Your task to perform on an android device: add a contact Image 0: 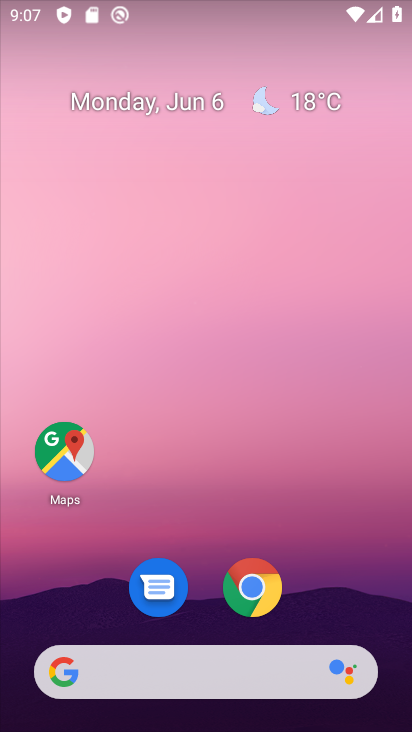
Step 0: drag from (315, 416) to (296, 127)
Your task to perform on an android device: add a contact Image 1: 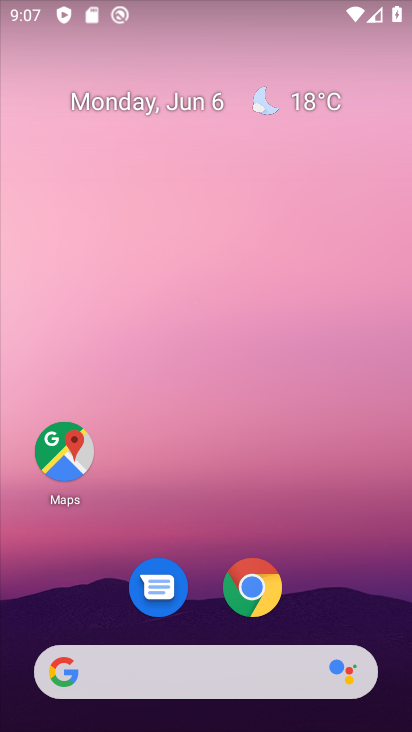
Step 1: drag from (295, 554) to (310, 101)
Your task to perform on an android device: add a contact Image 2: 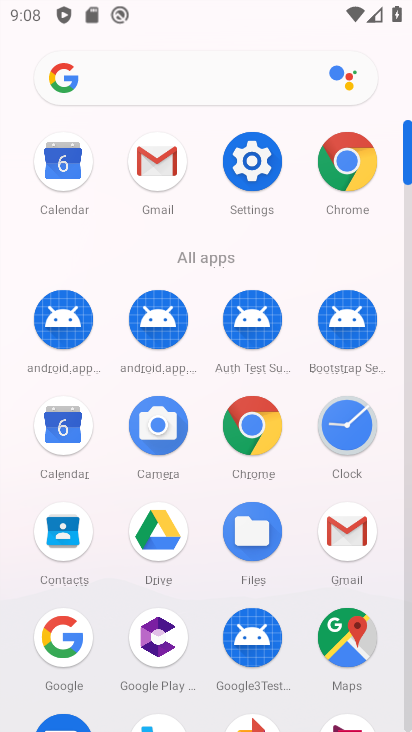
Step 2: click (73, 540)
Your task to perform on an android device: add a contact Image 3: 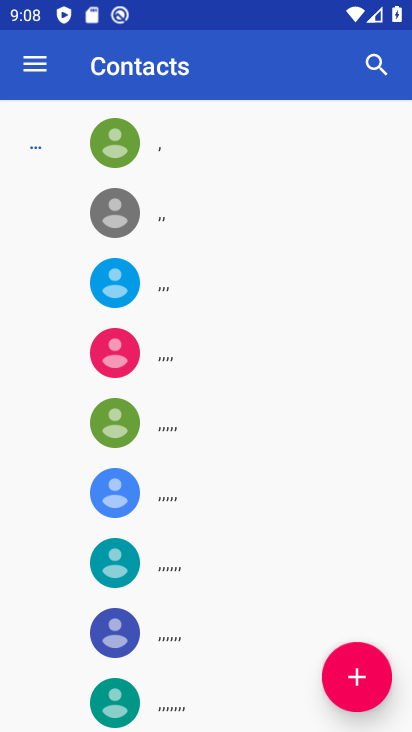
Step 3: click (322, 656)
Your task to perform on an android device: add a contact Image 4: 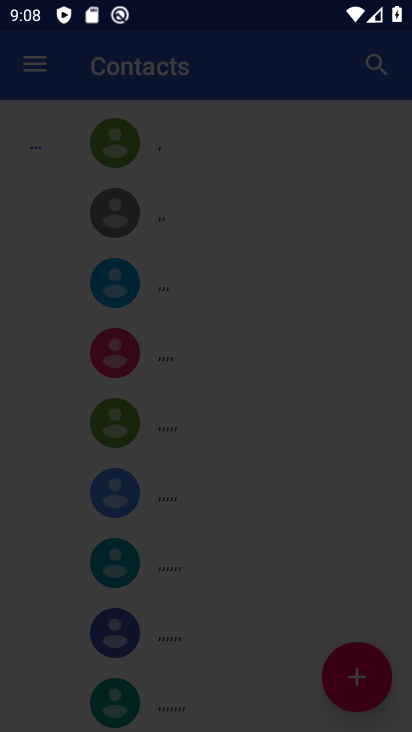
Step 4: click (339, 662)
Your task to perform on an android device: add a contact Image 5: 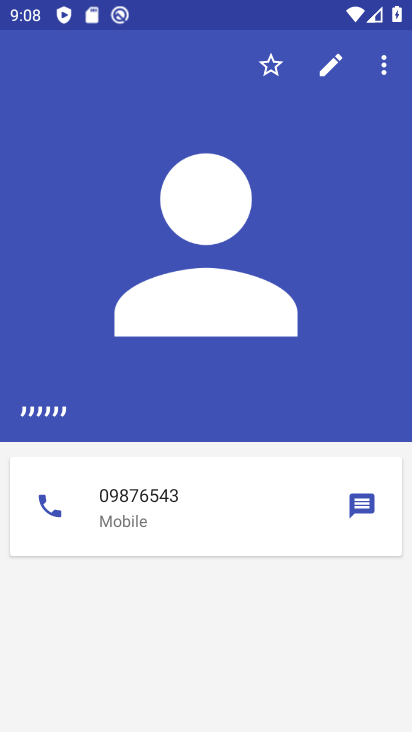
Step 5: press back button
Your task to perform on an android device: add a contact Image 6: 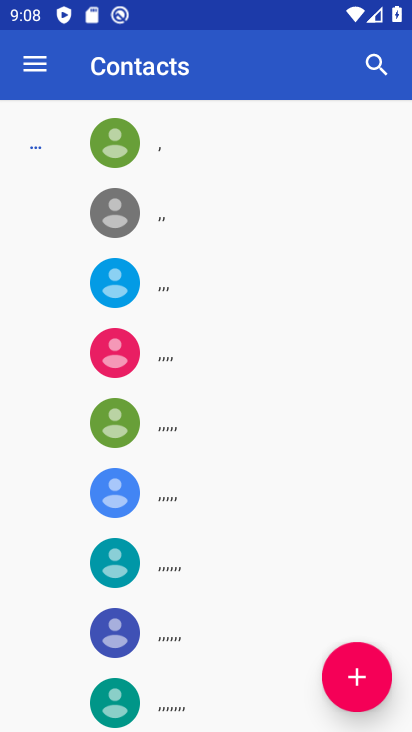
Step 6: click (360, 676)
Your task to perform on an android device: add a contact Image 7: 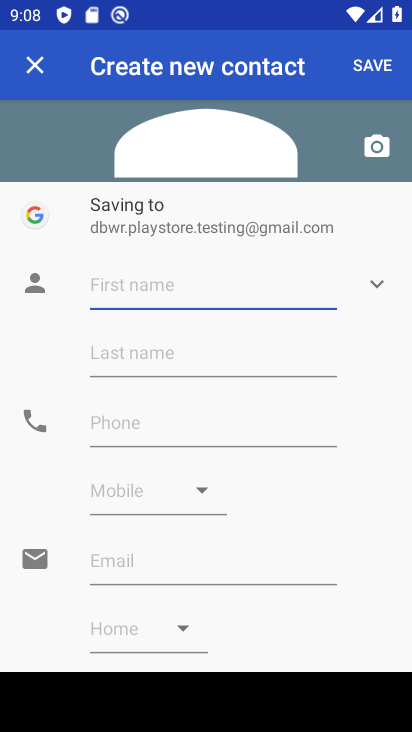
Step 7: type "titito"
Your task to perform on an android device: add a contact Image 8: 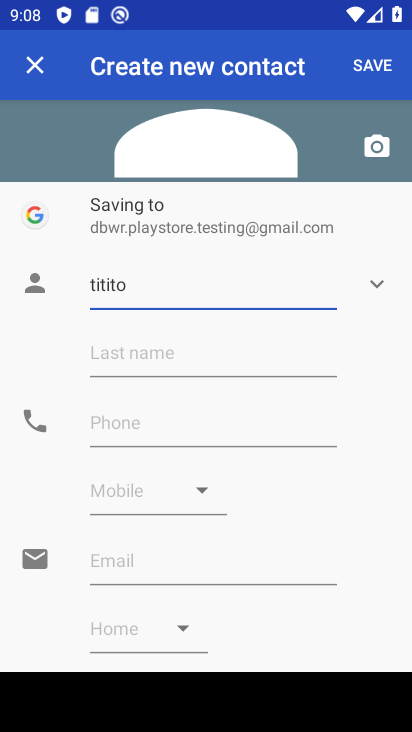
Step 8: click (366, 68)
Your task to perform on an android device: add a contact Image 9: 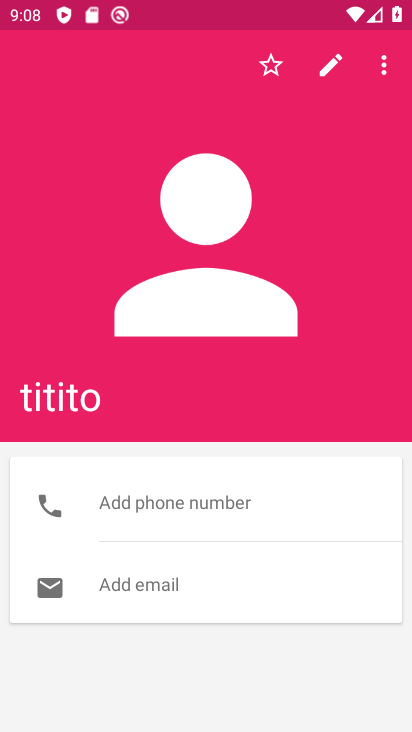
Step 9: task complete